Your task to perform on an android device: Open internet settings Image 0: 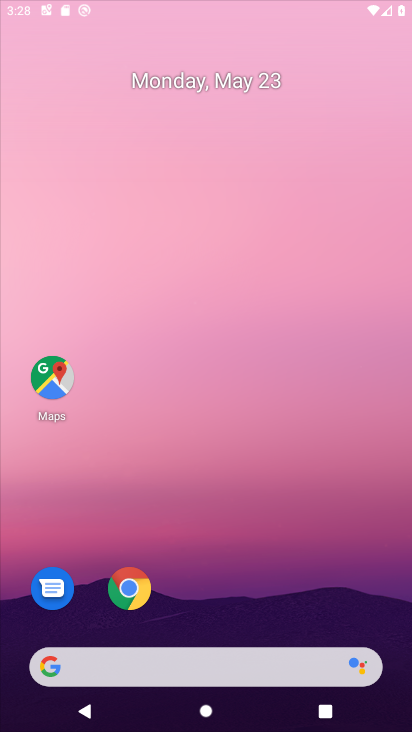
Step 0: drag from (183, 622) to (267, 71)
Your task to perform on an android device: Open internet settings Image 1: 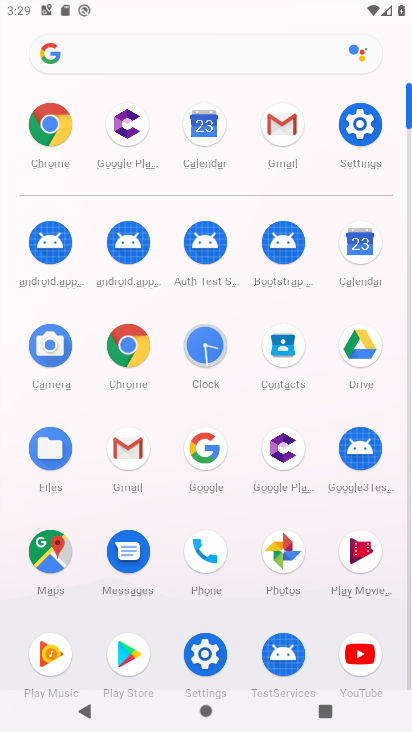
Step 1: click (367, 125)
Your task to perform on an android device: Open internet settings Image 2: 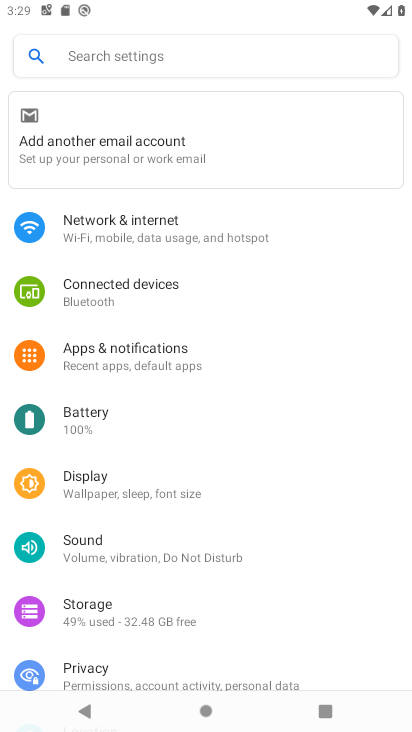
Step 2: click (117, 220)
Your task to perform on an android device: Open internet settings Image 3: 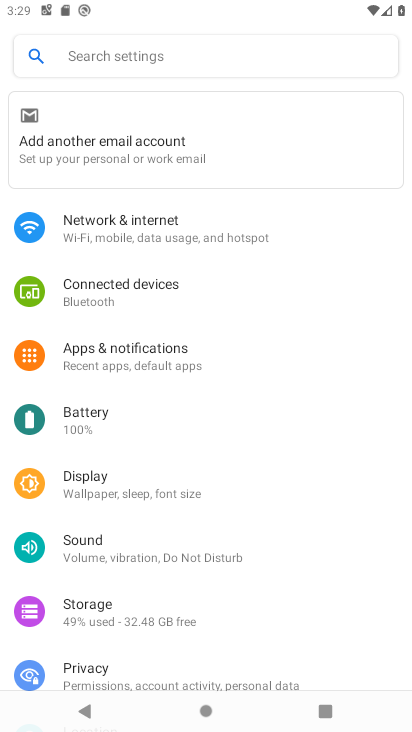
Step 3: click (117, 220)
Your task to perform on an android device: Open internet settings Image 4: 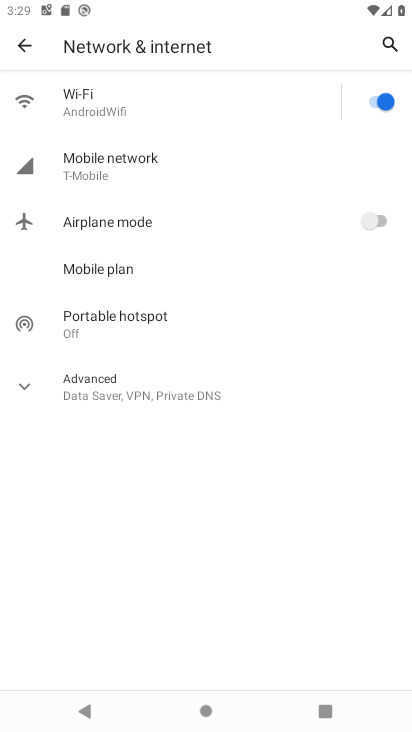
Step 4: task complete